Your task to perform on an android device: Check the news Image 0: 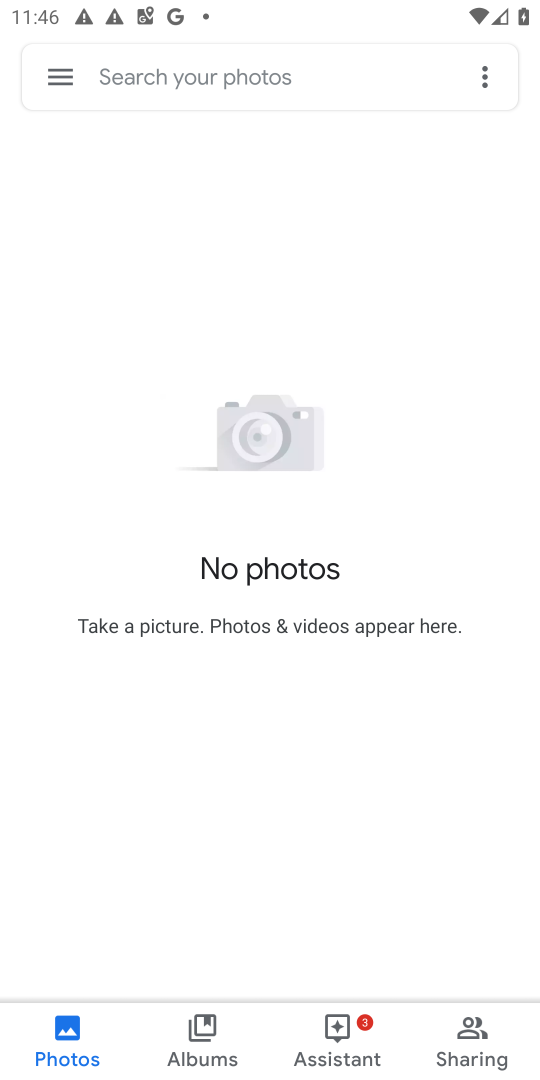
Step 0: press home button
Your task to perform on an android device: Check the news Image 1: 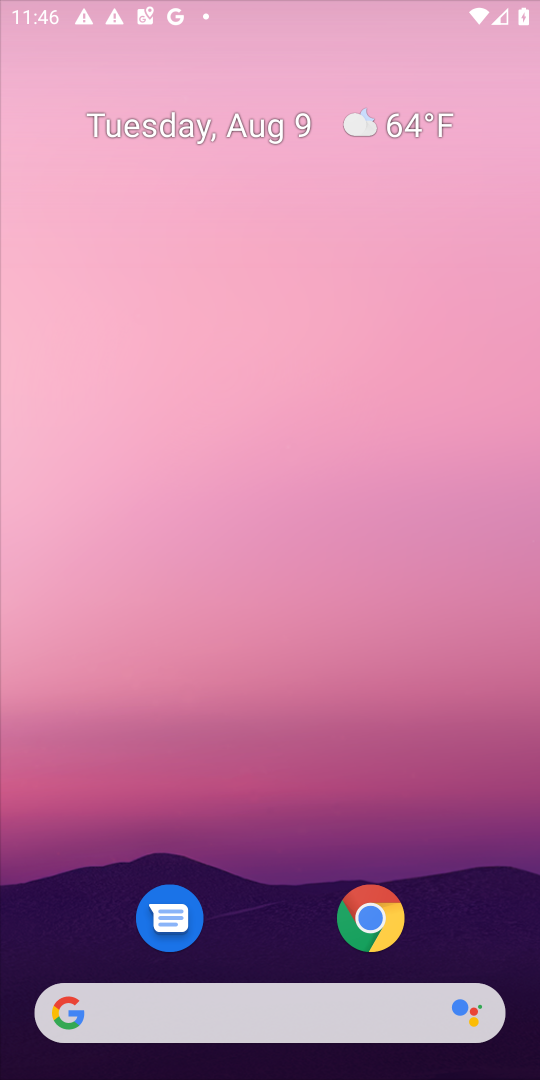
Step 1: drag from (260, 850) to (411, 23)
Your task to perform on an android device: Check the news Image 2: 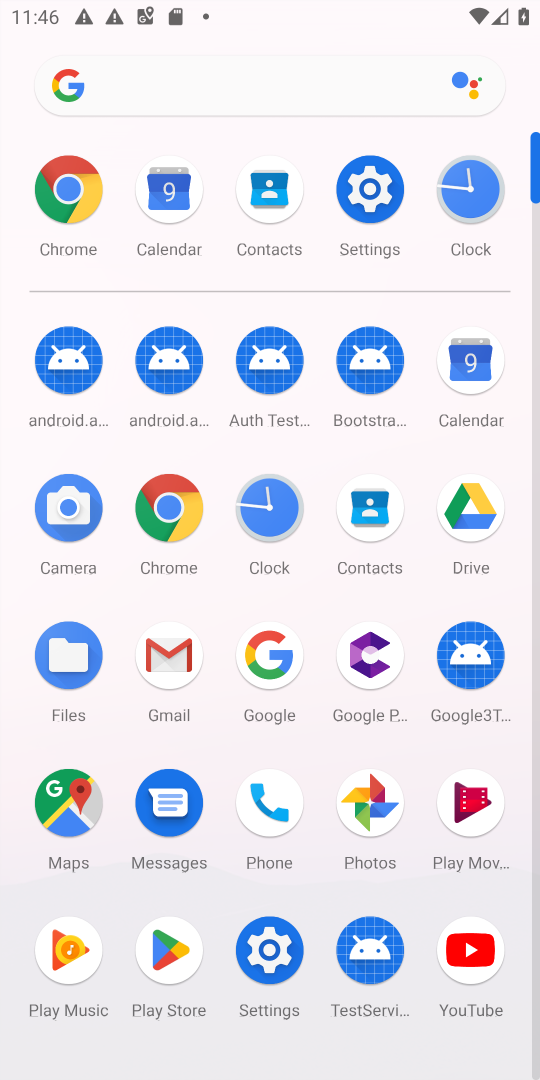
Step 2: click (163, 506)
Your task to perform on an android device: Check the news Image 3: 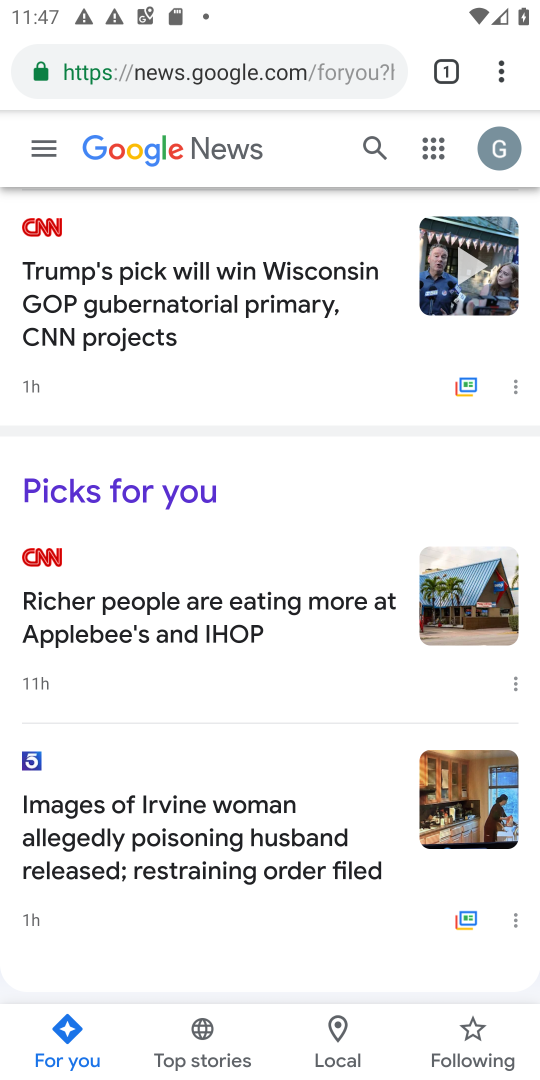
Step 3: task complete